Your task to perform on an android device: change keyboard looks Image 0: 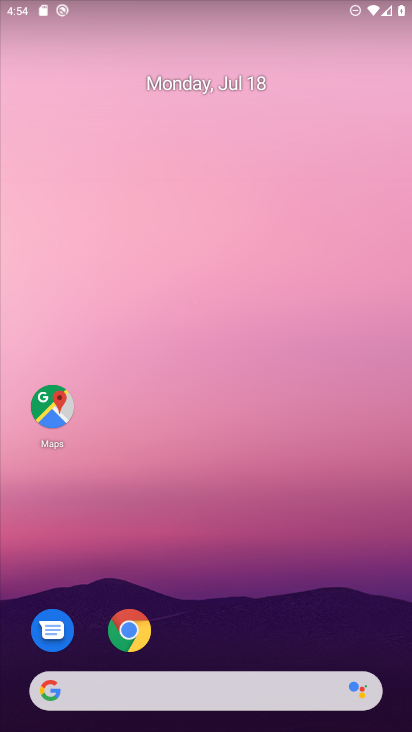
Step 0: press home button
Your task to perform on an android device: change keyboard looks Image 1: 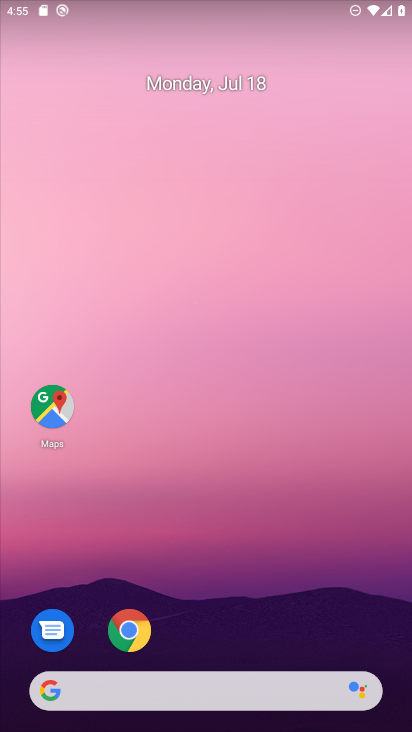
Step 1: drag from (221, 648) to (294, 237)
Your task to perform on an android device: change keyboard looks Image 2: 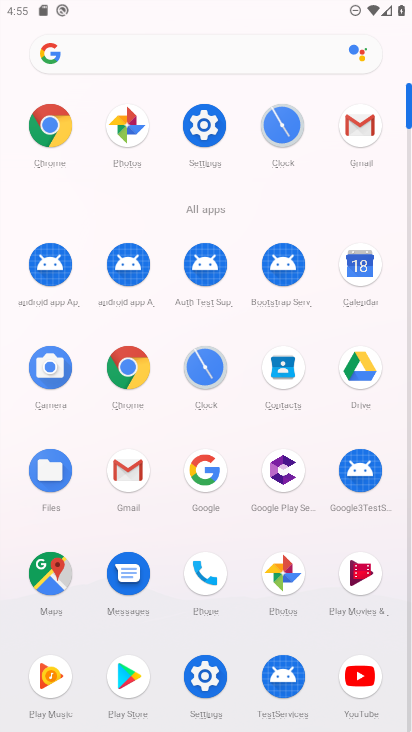
Step 2: click (200, 668)
Your task to perform on an android device: change keyboard looks Image 3: 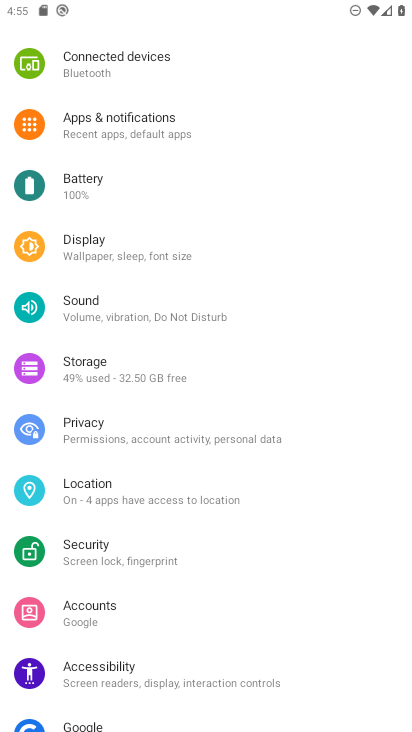
Step 3: drag from (149, 671) to (208, 375)
Your task to perform on an android device: change keyboard looks Image 4: 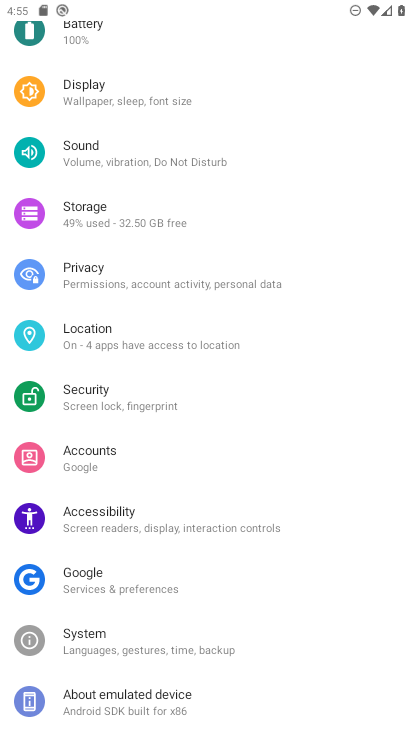
Step 4: click (128, 645)
Your task to perform on an android device: change keyboard looks Image 5: 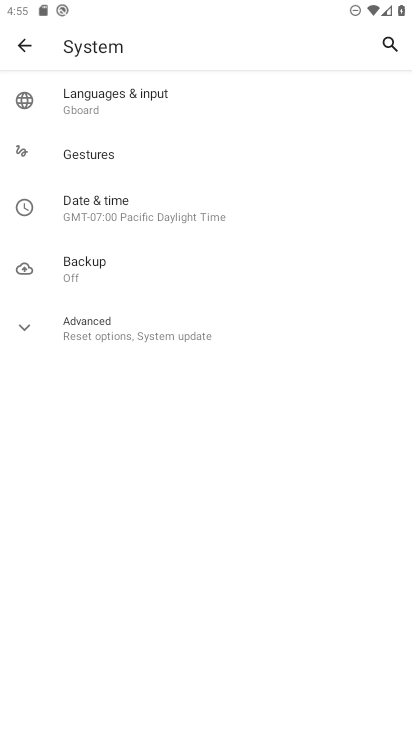
Step 5: click (24, 323)
Your task to perform on an android device: change keyboard looks Image 6: 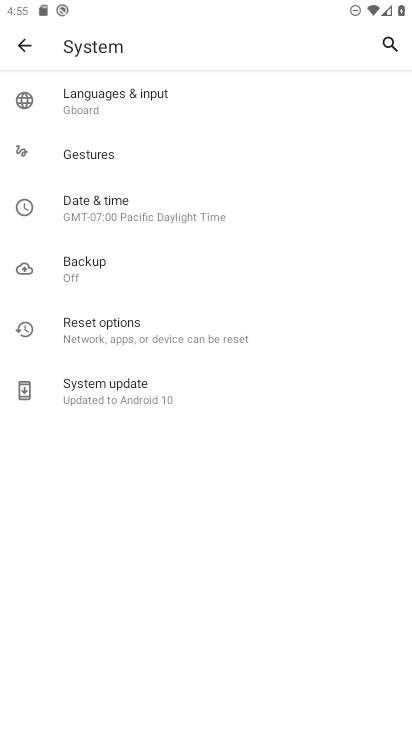
Step 6: click (140, 99)
Your task to perform on an android device: change keyboard looks Image 7: 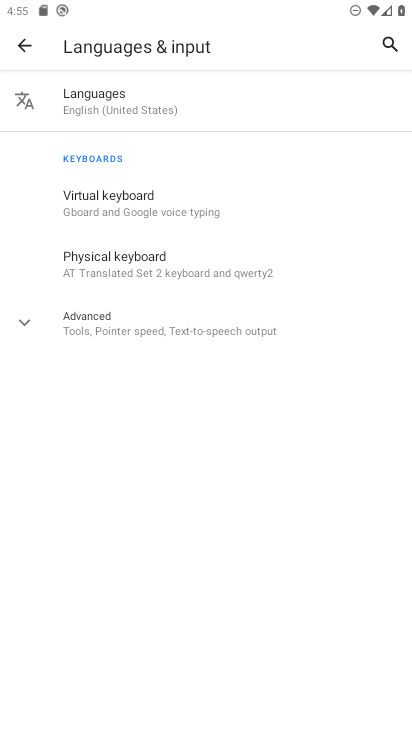
Step 7: click (97, 198)
Your task to perform on an android device: change keyboard looks Image 8: 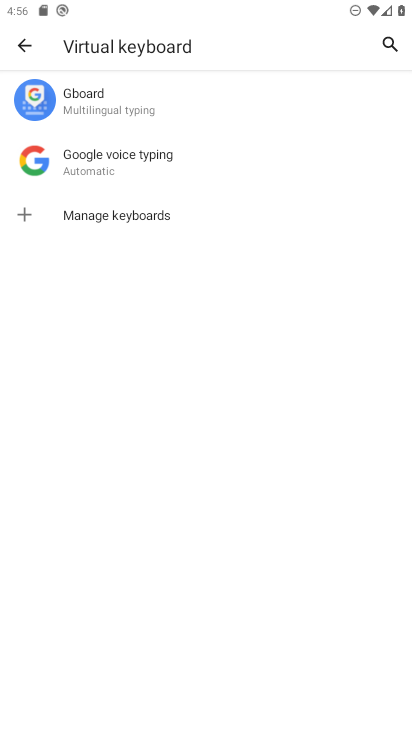
Step 8: click (138, 105)
Your task to perform on an android device: change keyboard looks Image 9: 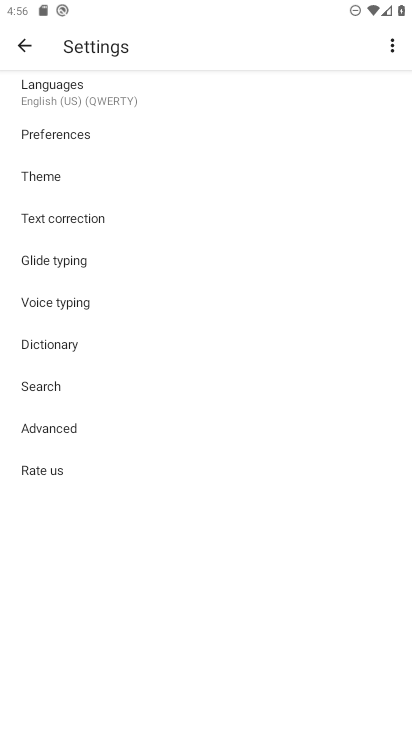
Step 9: click (75, 172)
Your task to perform on an android device: change keyboard looks Image 10: 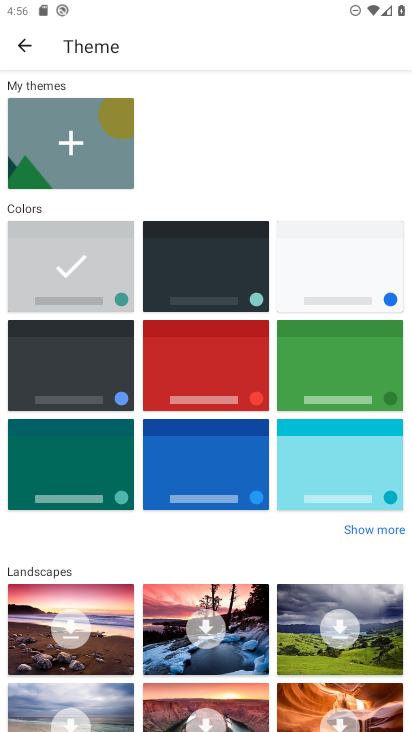
Step 10: click (73, 466)
Your task to perform on an android device: change keyboard looks Image 11: 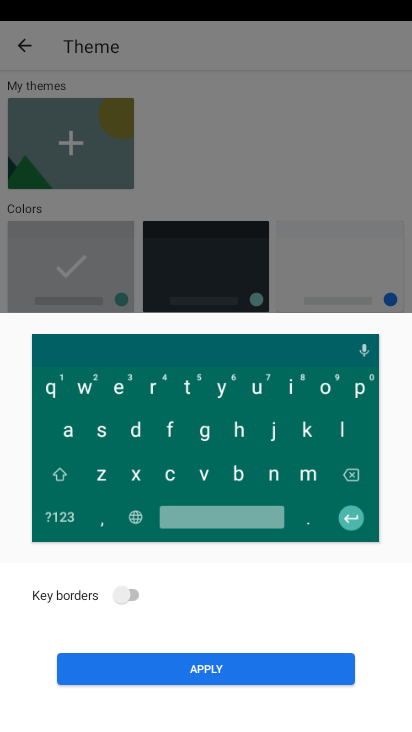
Step 11: click (198, 668)
Your task to perform on an android device: change keyboard looks Image 12: 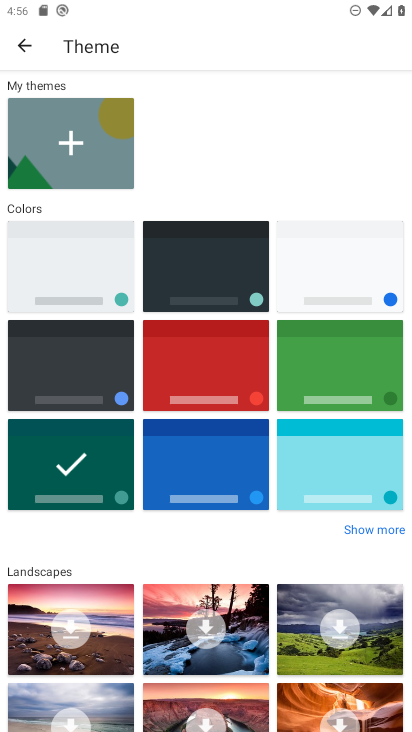
Step 12: task complete